Your task to perform on an android device: change your default location settings in chrome Image 0: 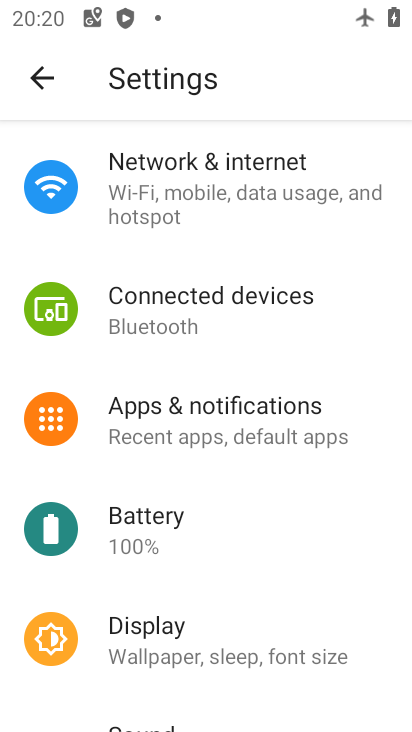
Step 0: press home button
Your task to perform on an android device: change your default location settings in chrome Image 1: 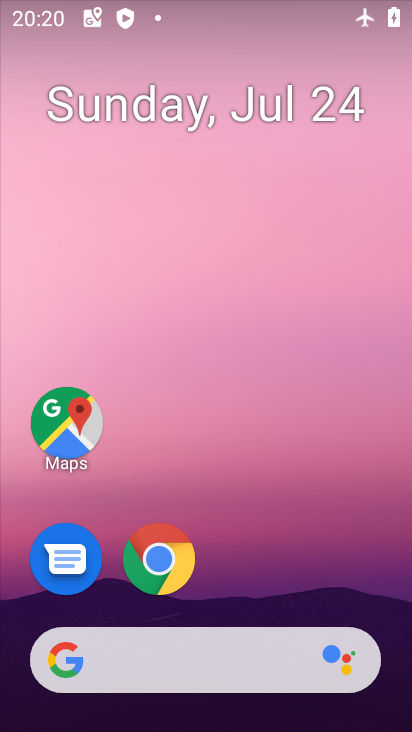
Step 1: drag from (371, 585) to (382, 91)
Your task to perform on an android device: change your default location settings in chrome Image 2: 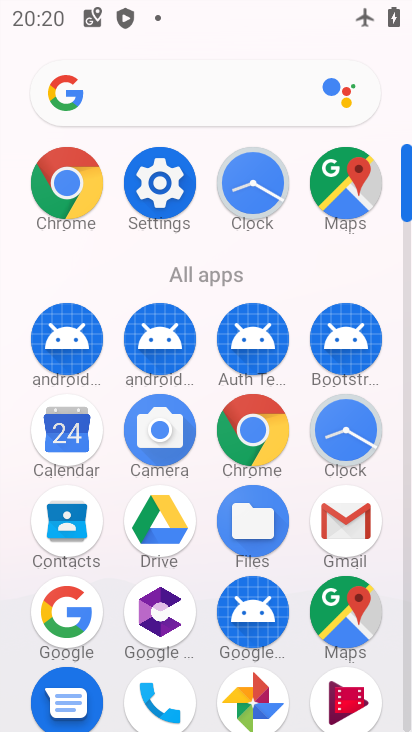
Step 2: click (255, 431)
Your task to perform on an android device: change your default location settings in chrome Image 3: 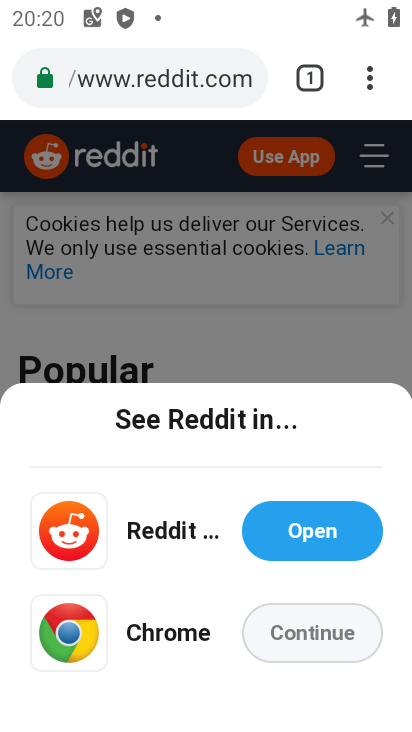
Step 3: click (370, 78)
Your task to perform on an android device: change your default location settings in chrome Image 4: 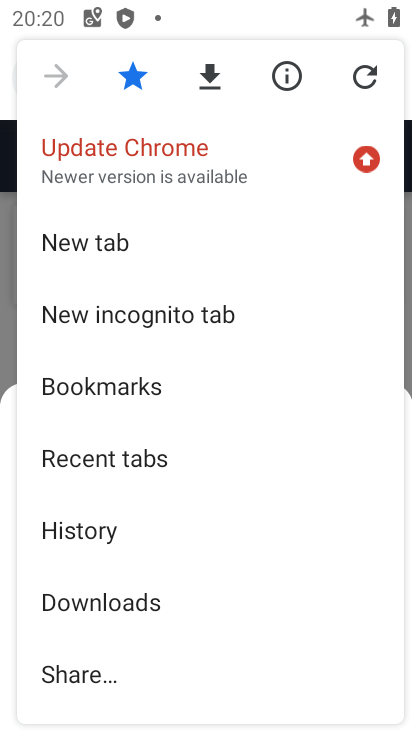
Step 4: drag from (304, 483) to (309, 385)
Your task to perform on an android device: change your default location settings in chrome Image 5: 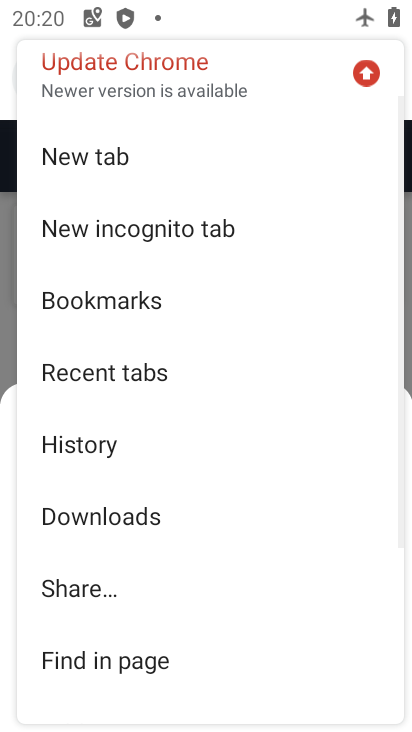
Step 5: drag from (301, 518) to (305, 408)
Your task to perform on an android device: change your default location settings in chrome Image 6: 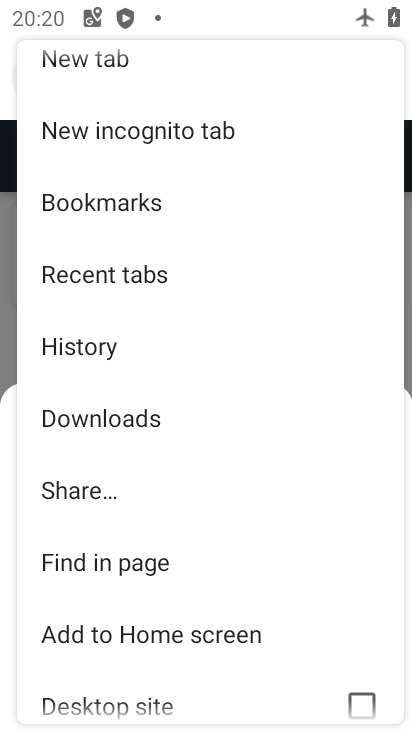
Step 6: drag from (301, 529) to (300, 415)
Your task to perform on an android device: change your default location settings in chrome Image 7: 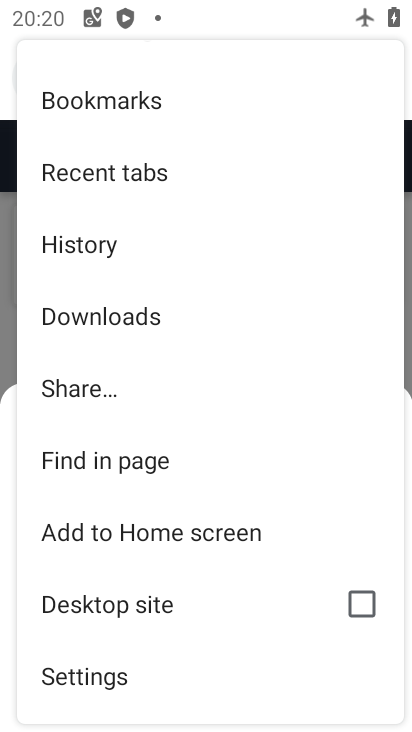
Step 7: drag from (300, 572) to (282, 408)
Your task to perform on an android device: change your default location settings in chrome Image 8: 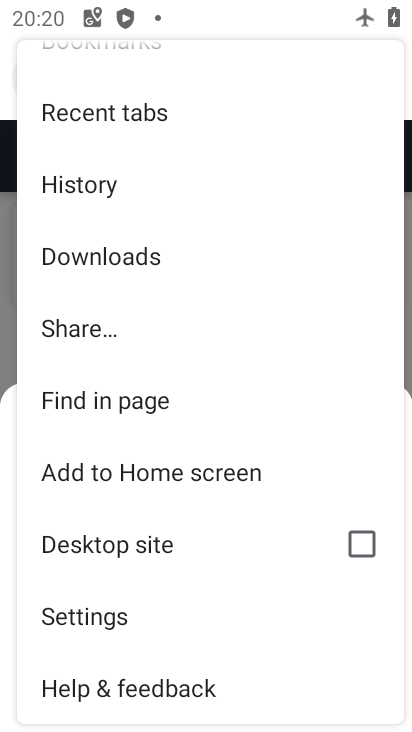
Step 8: click (238, 621)
Your task to perform on an android device: change your default location settings in chrome Image 9: 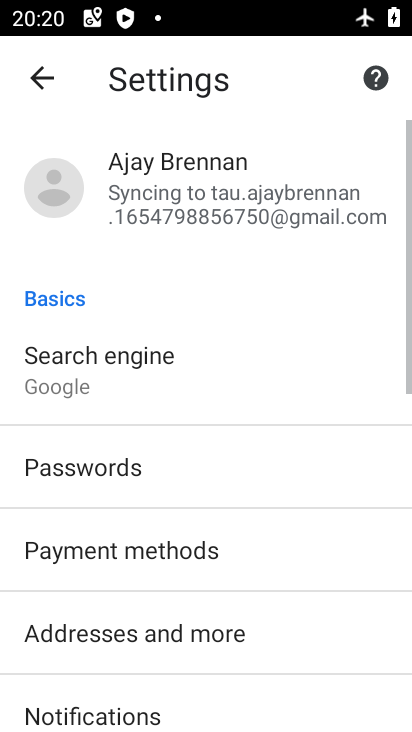
Step 9: drag from (299, 605) to (305, 522)
Your task to perform on an android device: change your default location settings in chrome Image 10: 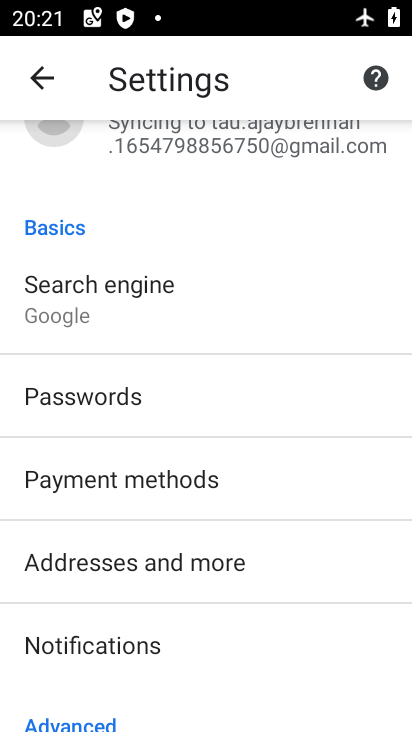
Step 10: drag from (307, 628) to (302, 501)
Your task to perform on an android device: change your default location settings in chrome Image 11: 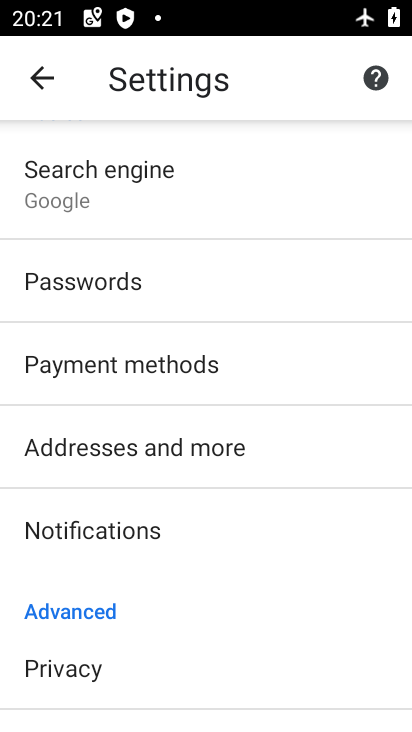
Step 11: drag from (302, 578) to (299, 501)
Your task to perform on an android device: change your default location settings in chrome Image 12: 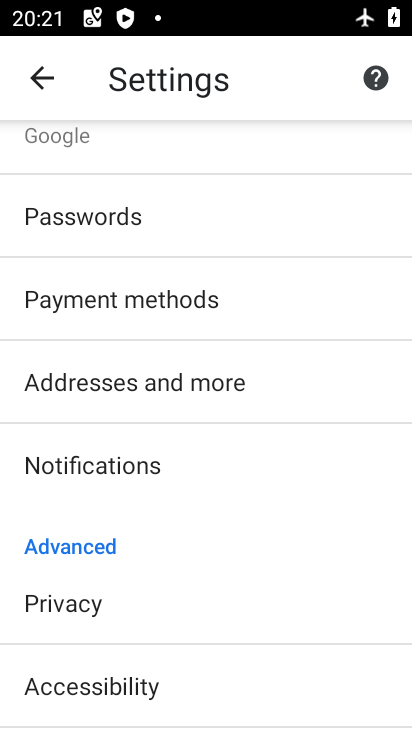
Step 12: drag from (287, 628) to (288, 483)
Your task to perform on an android device: change your default location settings in chrome Image 13: 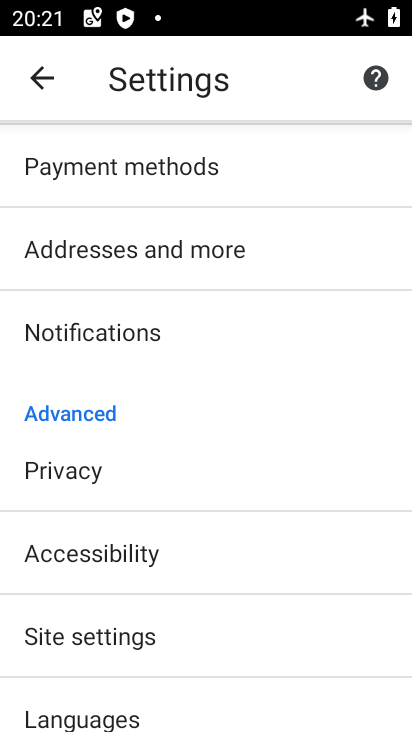
Step 13: click (267, 627)
Your task to perform on an android device: change your default location settings in chrome Image 14: 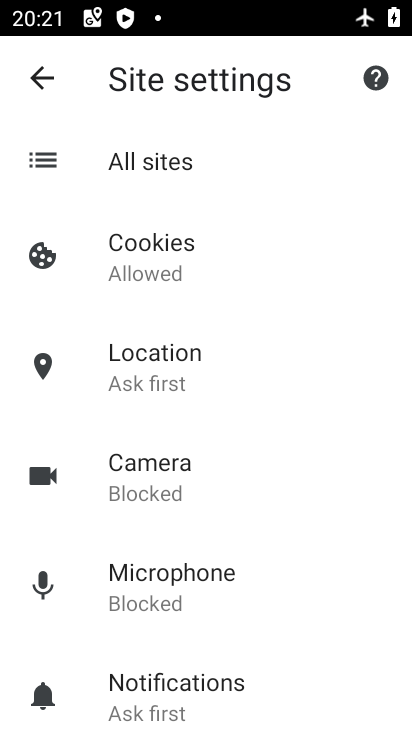
Step 14: click (232, 369)
Your task to perform on an android device: change your default location settings in chrome Image 15: 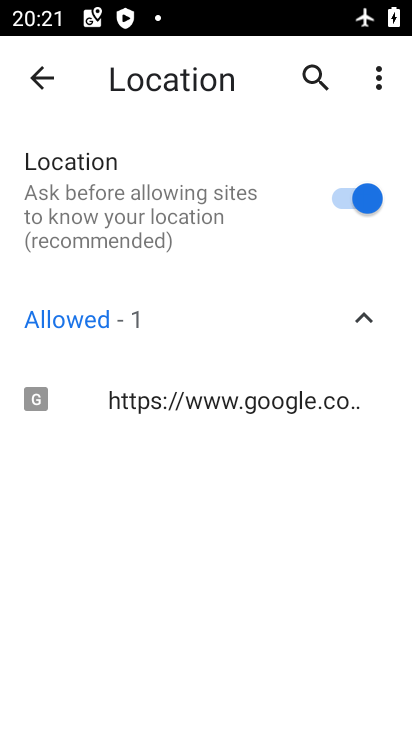
Step 15: click (356, 201)
Your task to perform on an android device: change your default location settings in chrome Image 16: 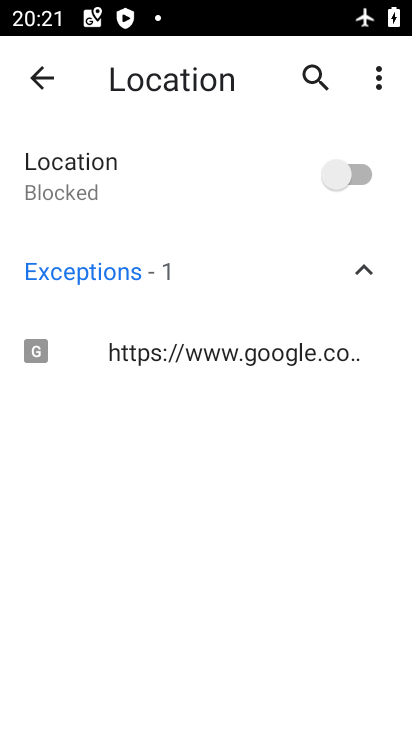
Step 16: task complete